Your task to perform on an android device: Go to Google Image 0: 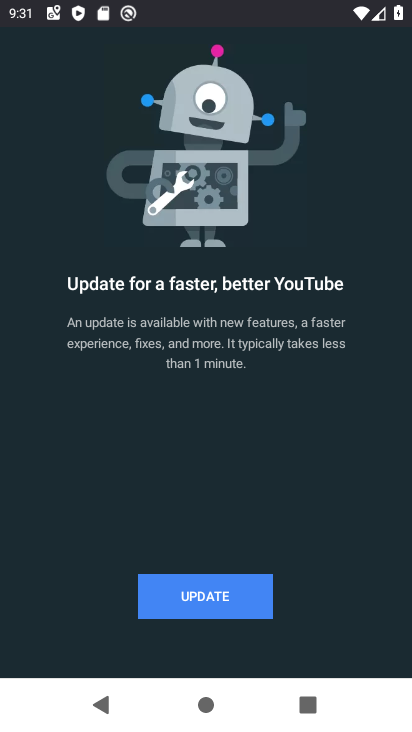
Step 0: press home button
Your task to perform on an android device: Go to Google Image 1: 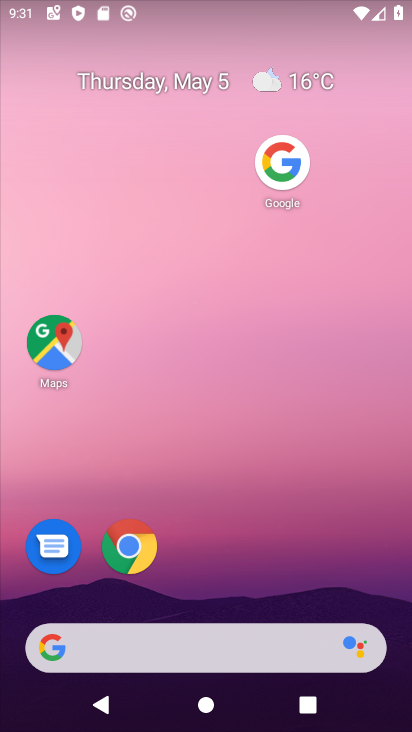
Step 1: drag from (181, 639) to (394, 27)
Your task to perform on an android device: Go to Google Image 2: 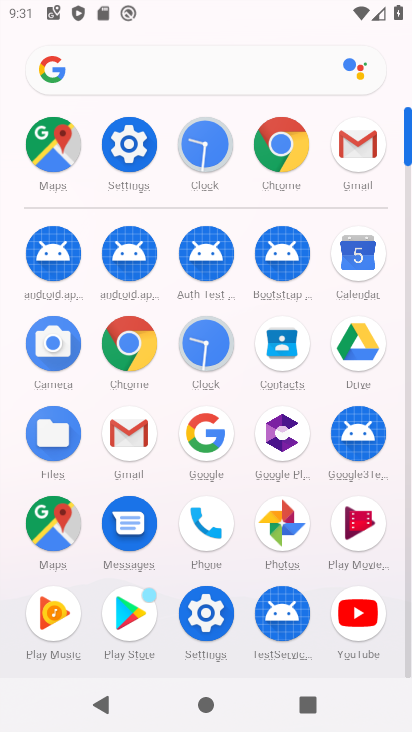
Step 2: click (206, 443)
Your task to perform on an android device: Go to Google Image 3: 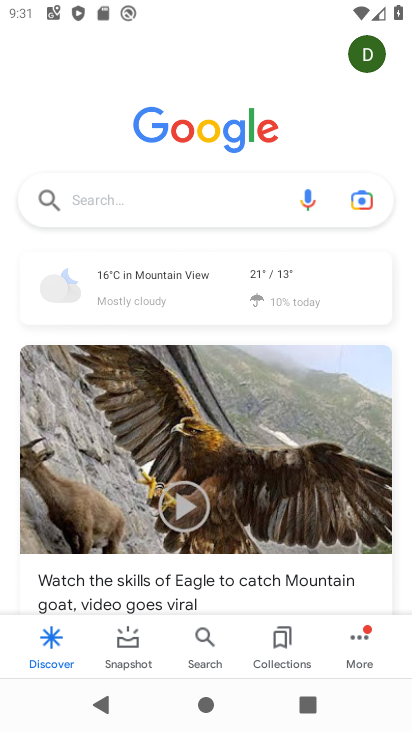
Step 3: task complete